Your task to perform on an android device: Open privacy settings Image 0: 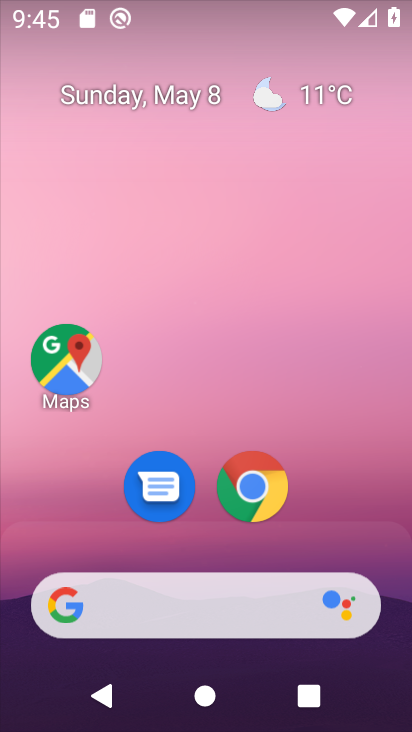
Step 0: click (246, 489)
Your task to perform on an android device: Open privacy settings Image 1: 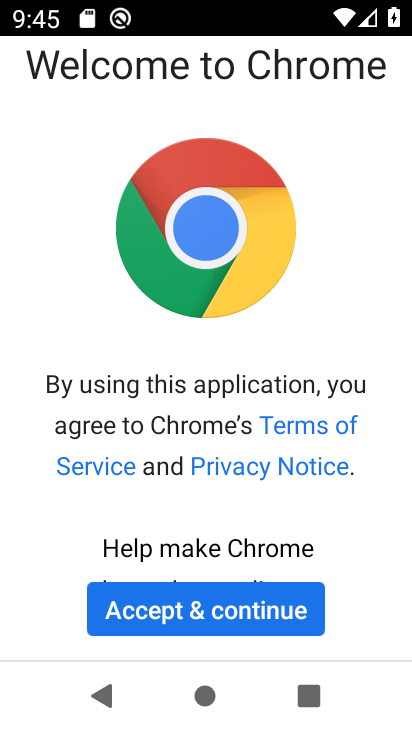
Step 1: click (234, 600)
Your task to perform on an android device: Open privacy settings Image 2: 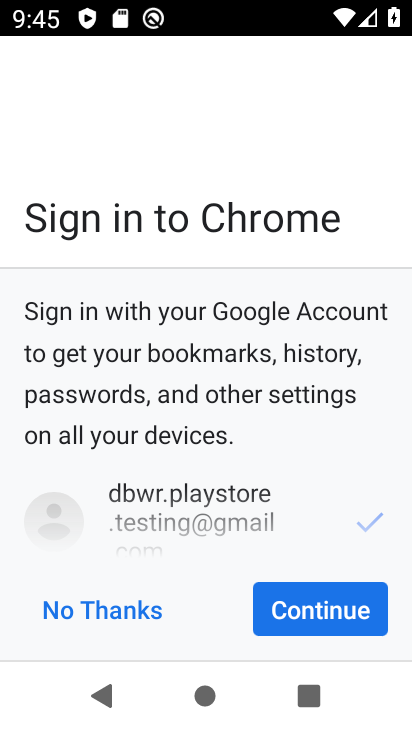
Step 2: click (343, 607)
Your task to perform on an android device: Open privacy settings Image 3: 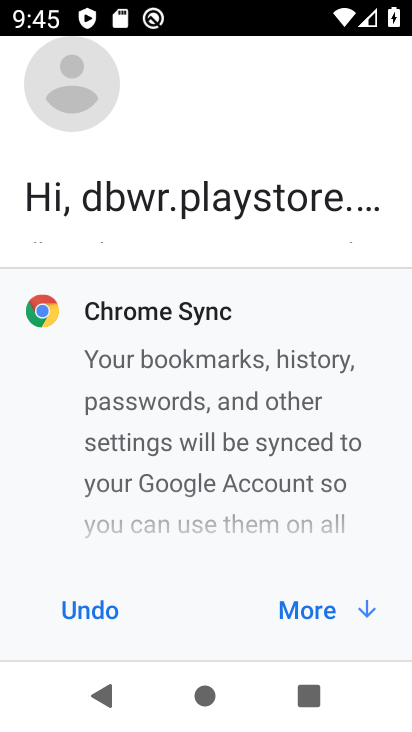
Step 3: click (340, 608)
Your task to perform on an android device: Open privacy settings Image 4: 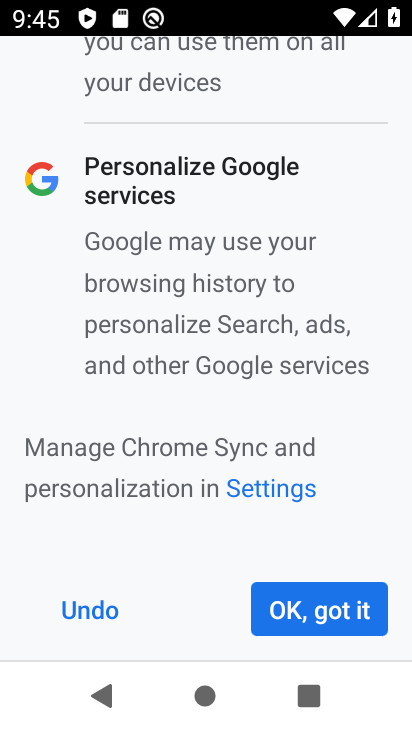
Step 4: click (339, 608)
Your task to perform on an android device: Open privacy settings Image 5: 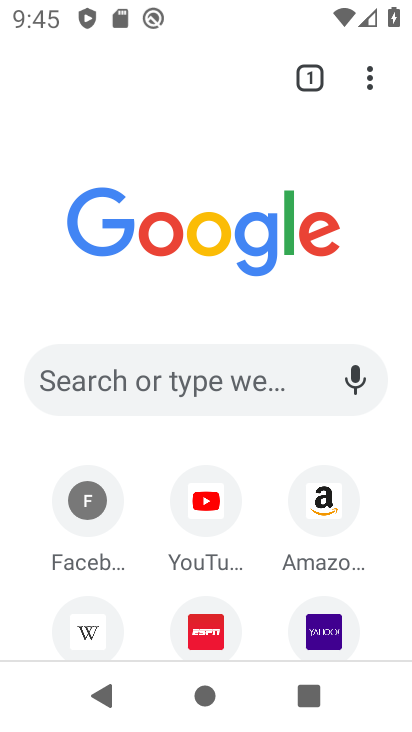
Step 5: click (371, 80)
Your task to perform on an android device: Open privacy settings Image 6: 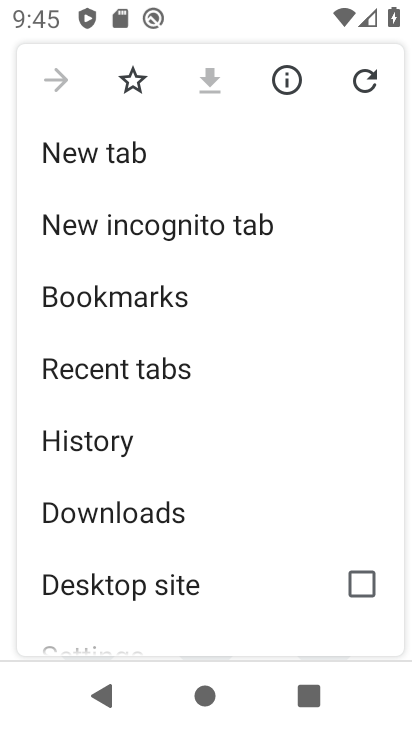
Step 6: drag from (178, 585) to (133, 264)
Your task to perform on an android device: Open privacy settings Image 7: 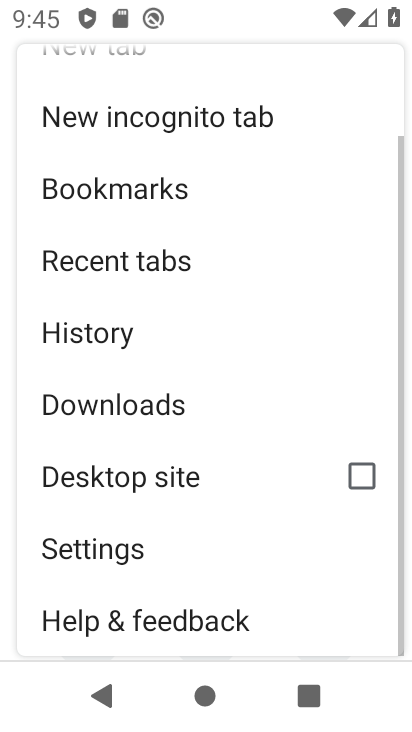
Step 7: click (148, 562)
Your task to perform on an android device: Open privacy settings Image 8: 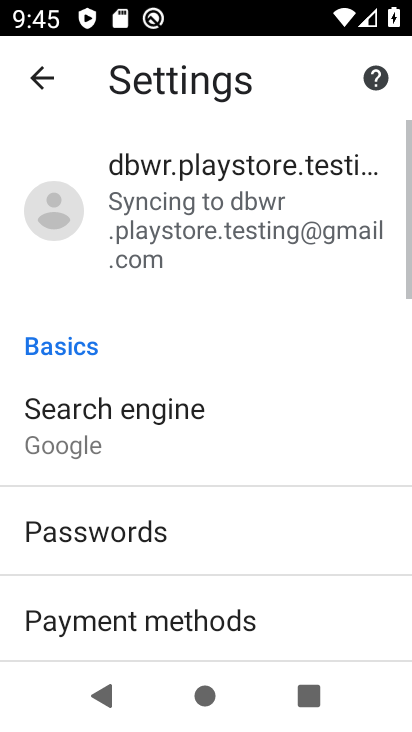
Step 8: drag from (125, 581) to (144, 244)
Your task to perform on an android device: Open privacy settings Image 9: 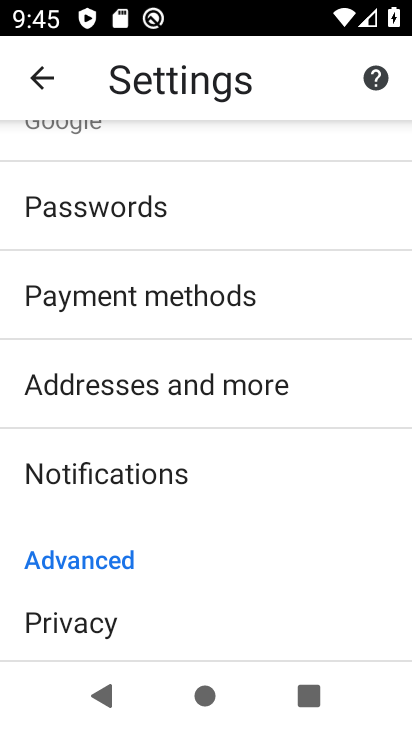
Step 9: click (99, 622)
Your task to perform on an android device: Open privacy settings Image 10: 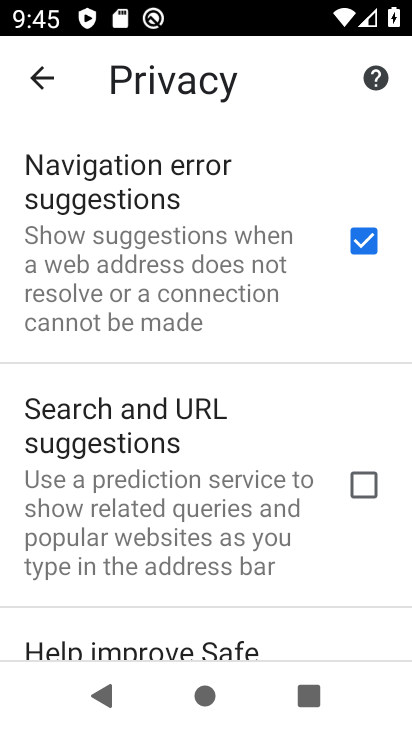
Step 10: task complete